Your task to perform on an android device: What's on my calendar today? Image 0: 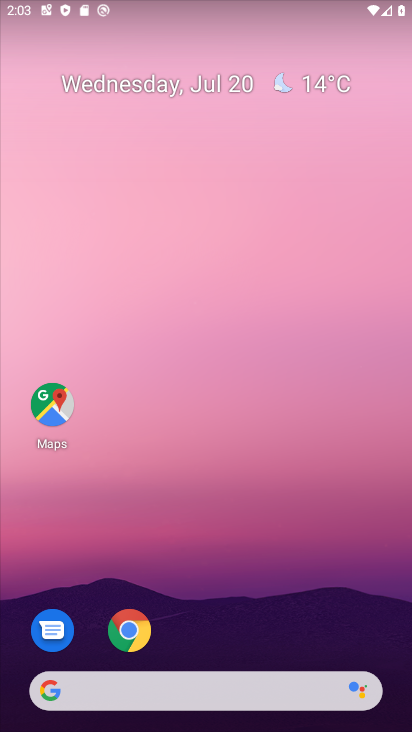
Step 0: drag from (239, 699) to (249, 63)
Your task to perform on an android device: What's on my calendar today? Image 1: 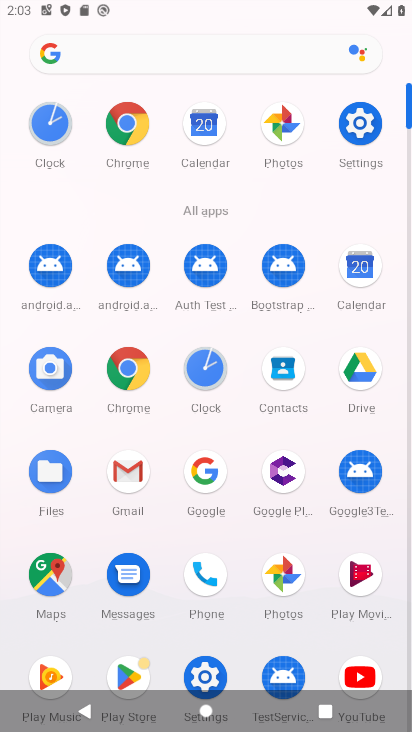
Step 1: click (352, 271)
Your task to perform on an android device: What's on my calendar today? Image 2: 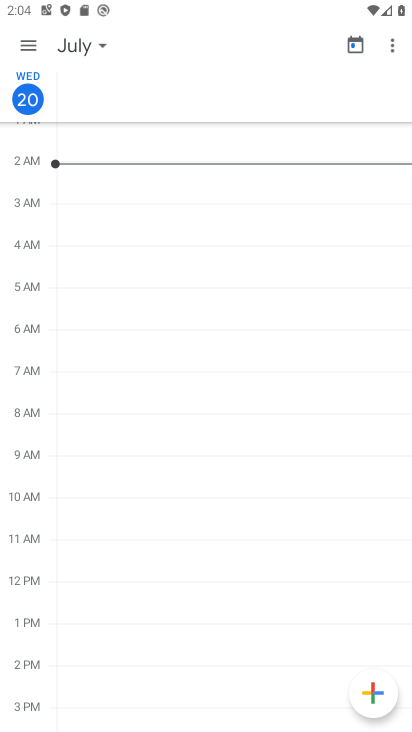
Step 2: task complete